Your task to perform on an android device: Go to display settings Image 0: 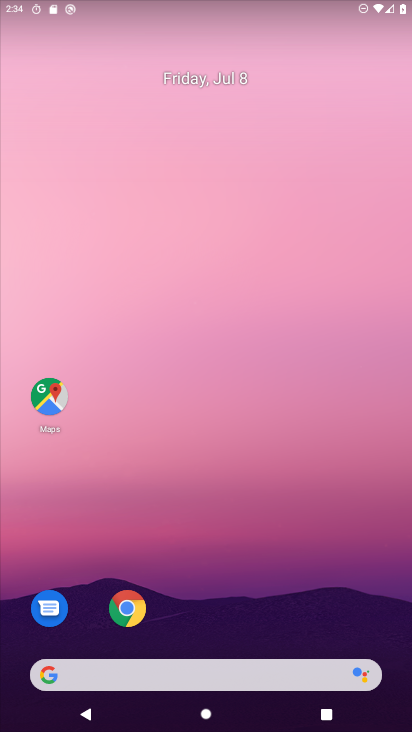
Step 0: drag from (219, 272) to (205, 94)
Your task to perform on an android device: Go to display settings Image 1: 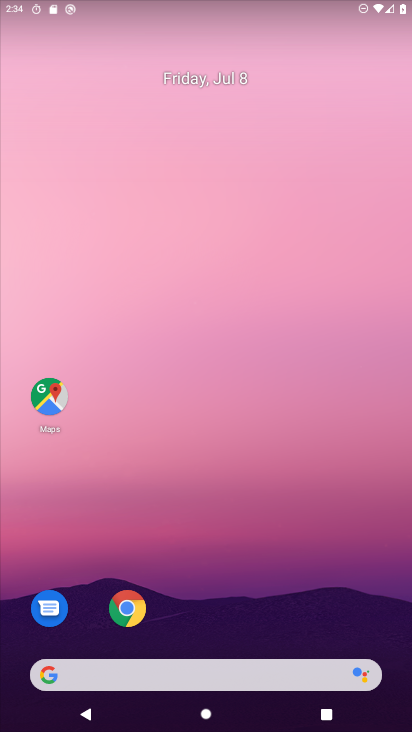
Step 1: drag from (254, 725) to (232, 66)
Your task to perform on an android device: Go to display settings Image 2: 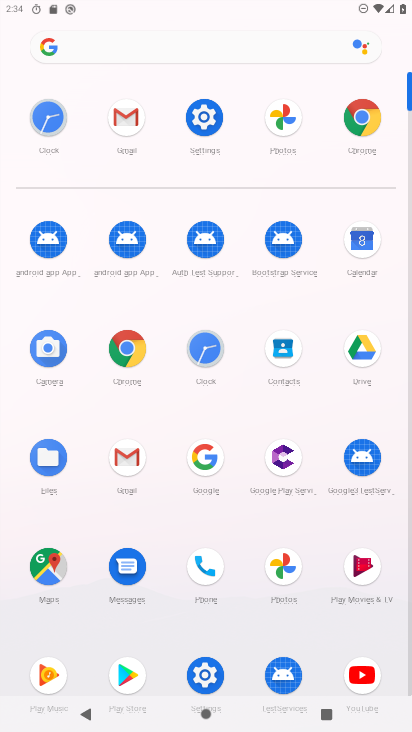
Step 2: click (212, 116)
Your task to perform on an android device: Go to display settings Image 3: 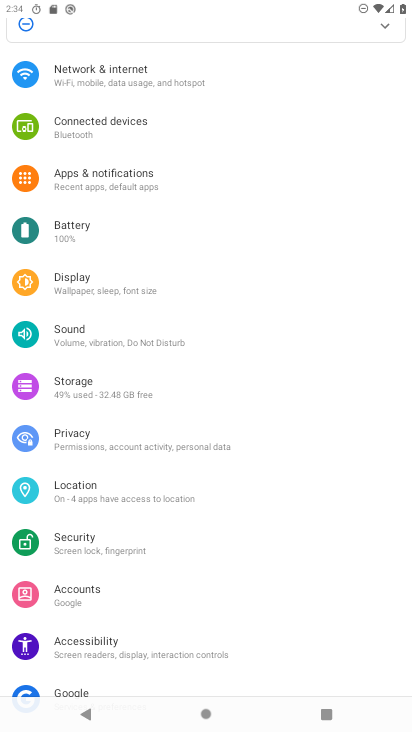
Step 3: click (76, 285)
Your task to perform on an android device: Go to display settings Image 4: 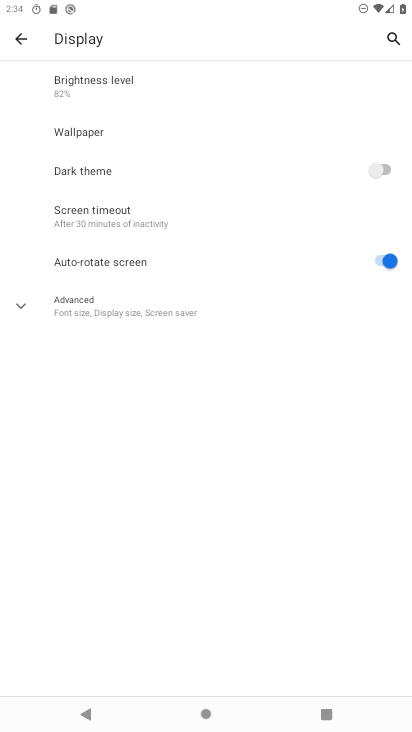
Step 4: task complete